Your task to perform on an android device: toggle airplane mode Image 0: 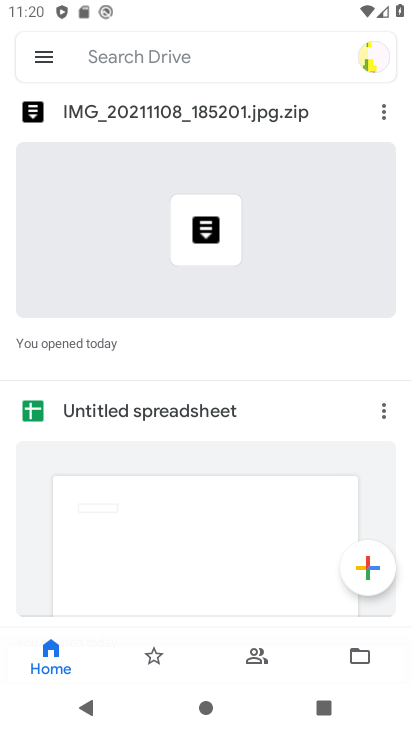
Step 0: press home button
Your task to perform on an android device: toggle airplane mode Image 1: 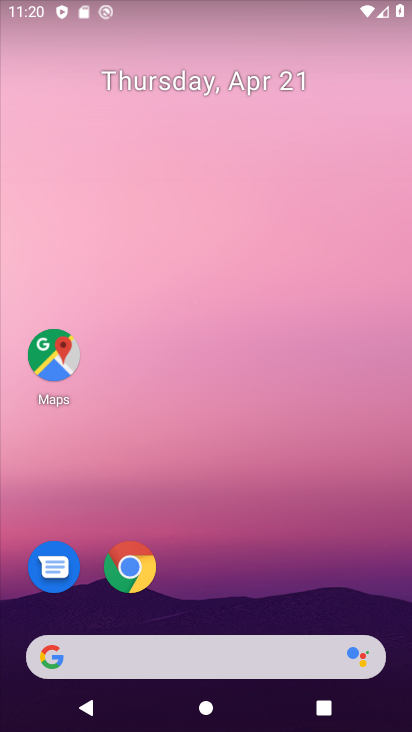
Step 1: drag from (386, 585) to (402, 176)
Your task to perform on an android device: toggle airplane mode Image 2: 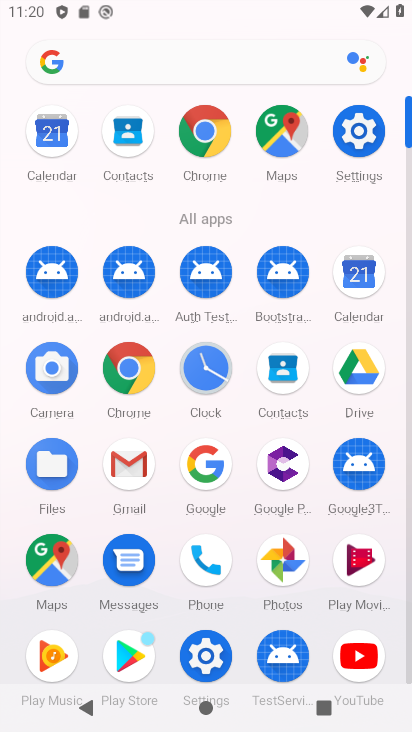
Step 2: click (365, 155)
Your task to perform on an android device: toggle airplane mode Image 3: 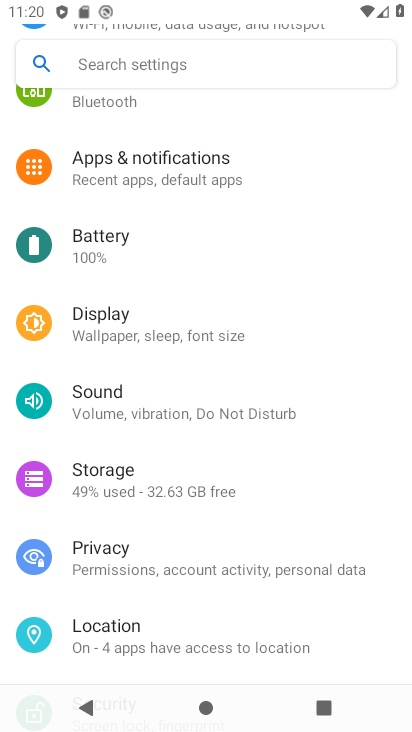
Step 3: drag from (331, 177) to (307, 478)
Your task to perform on an android device: toggle airplane mode Image 4: 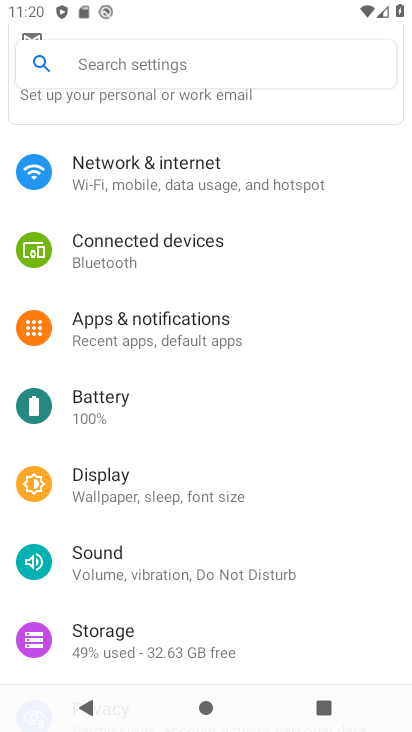
Step 4: drag from (275, 256) to (286, 449)
Your task to perform on an android device: toggle airplane mode Image 5: 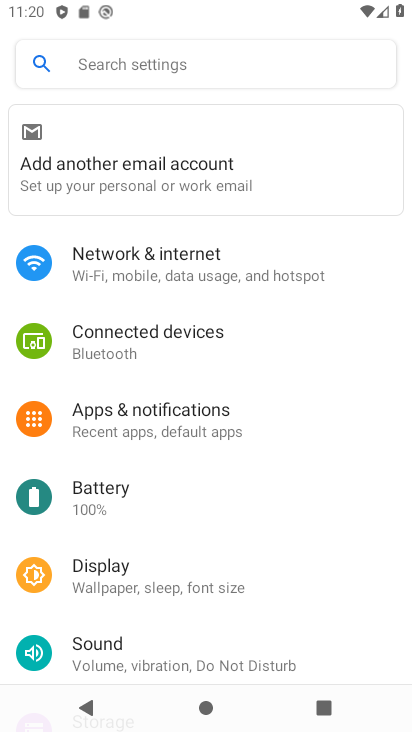
Step 5: click (257, 274)
Your task to perform on an android device: toggle airplane mode Image 6: 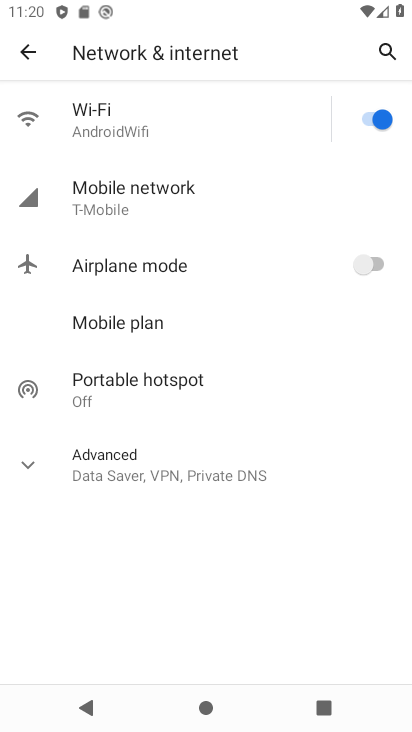
Step 6: click (377, 264)
Your task to perform on an android device: toggle airplane mode Image 7: 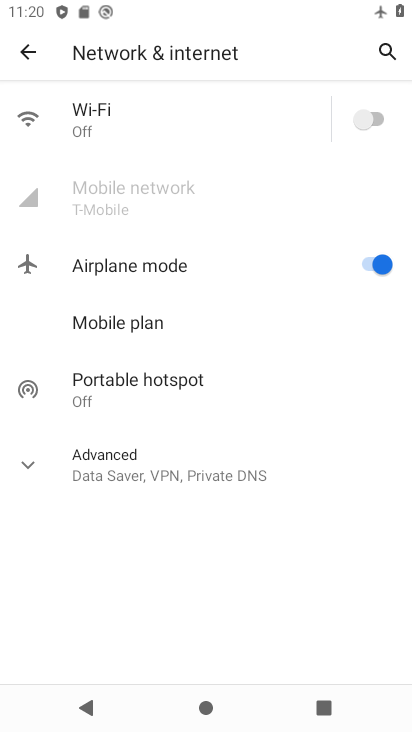
Step 7: task complete